Your task to perform on an android device: turn off airplane mode Image 0: 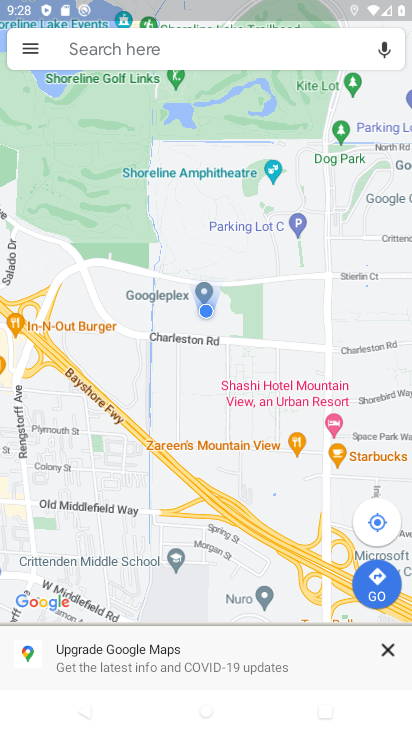
Step 0: drag from (279, 1) to (290, 576)
Your task to perform on an android device: turn off airplane mode Image 1: 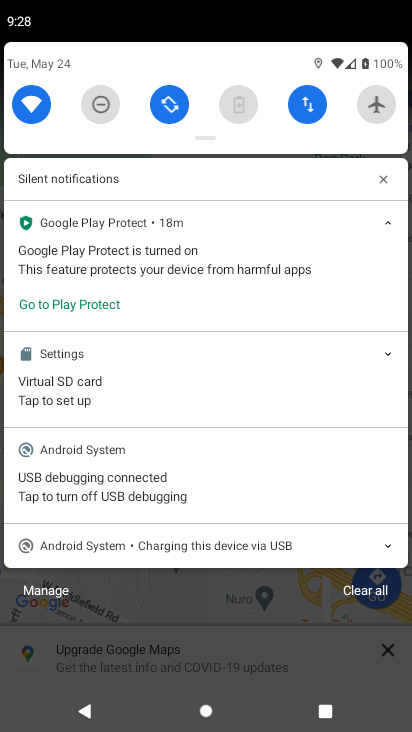
Step 1: task complete